Your task to perform on an android device: Open display settings Image 0: 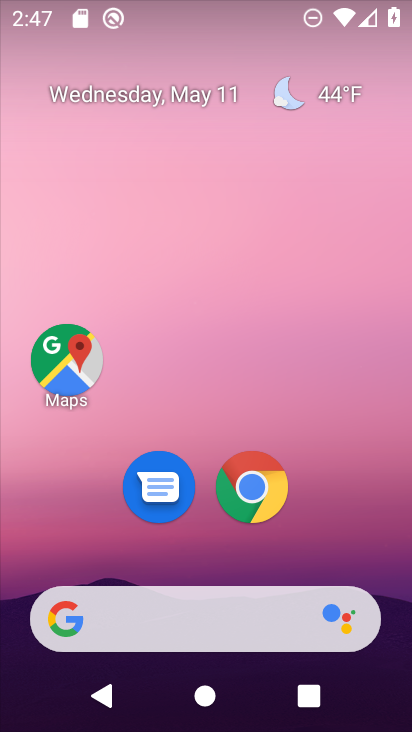
Step 0: drag from (183, 560) to (276, 85)
Your task to perform on an android device: Open display settings Image 1: 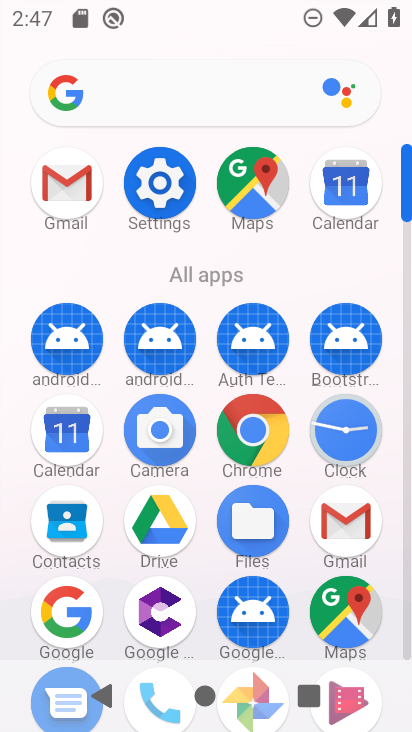
Step 1: click (162, 181)
Your task to perform on an android device: Open display settings Image 2: 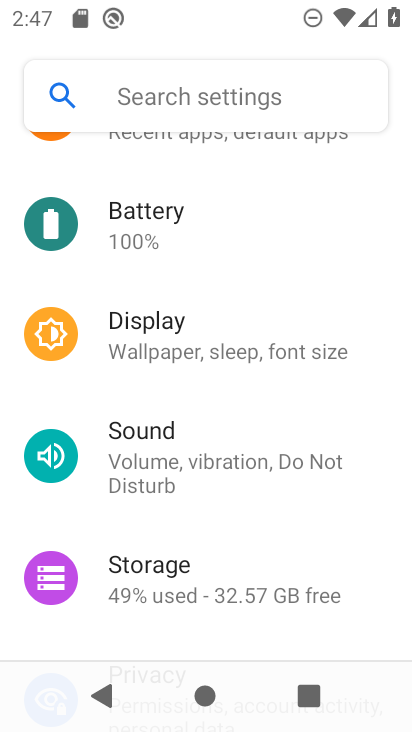
Step 2: click (143, 342)
Your task to perform on an android device: Open display settings Image 3: 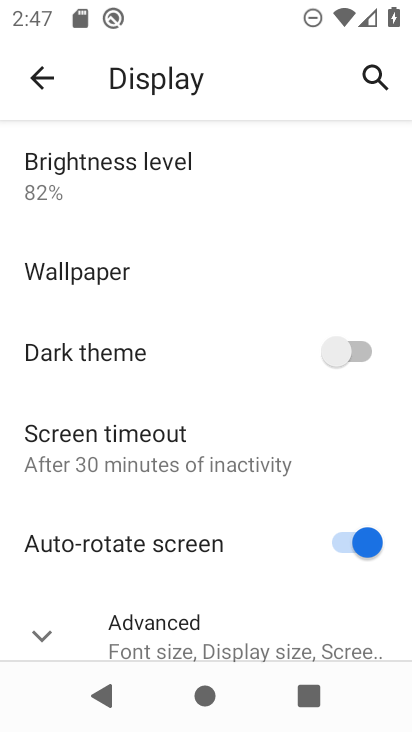
Step 3: task complete